Your task to perform on an android device: Play the last video I watched on Youtube Image 0: 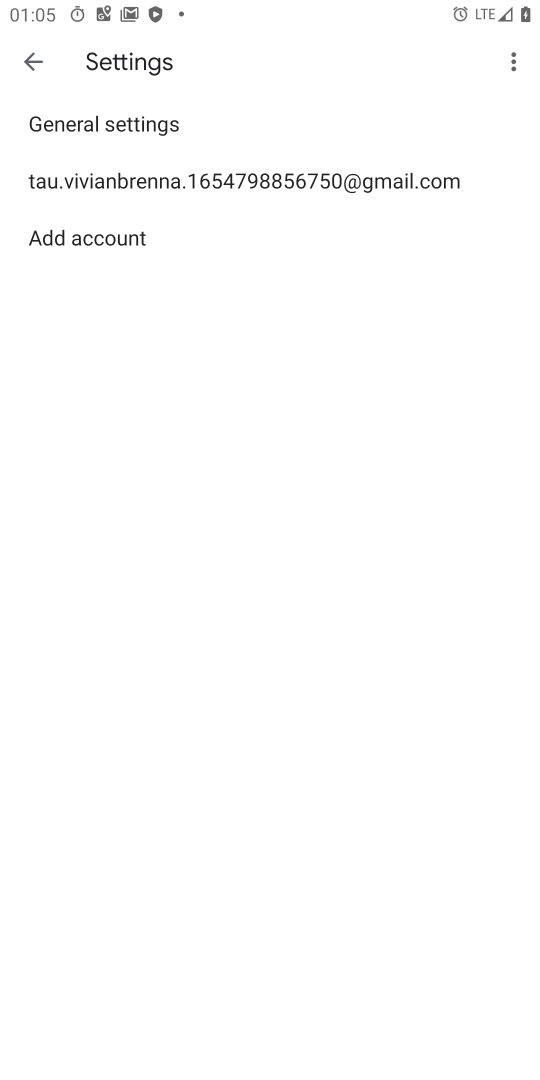
Step 0: press home button
Your task to perform on an android device: Play the last video I watched on Youtube Image 1: 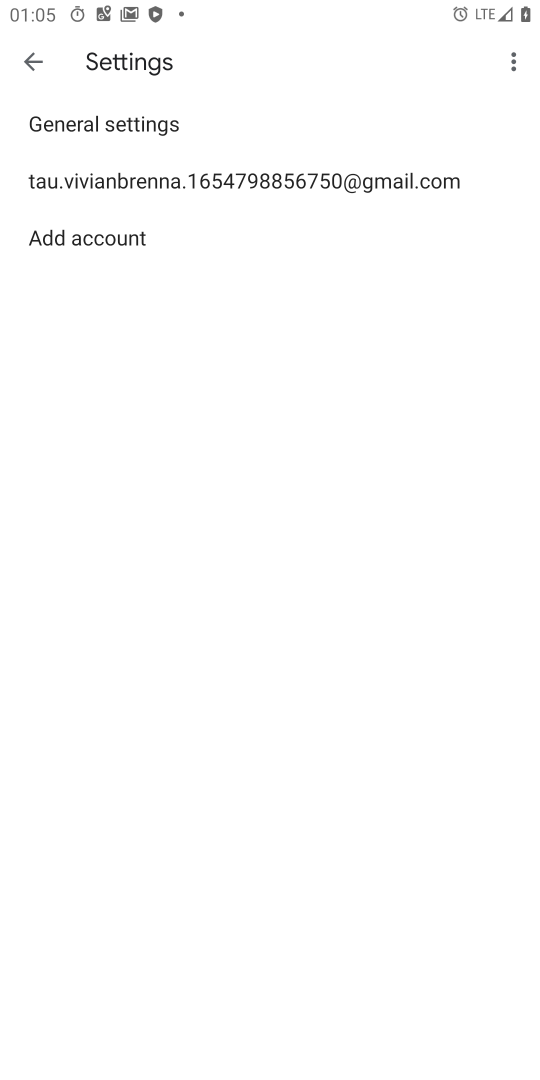
Step 1: press home button
Your task to perform on an android device: Play the last video I watched on Youtube Image 2: 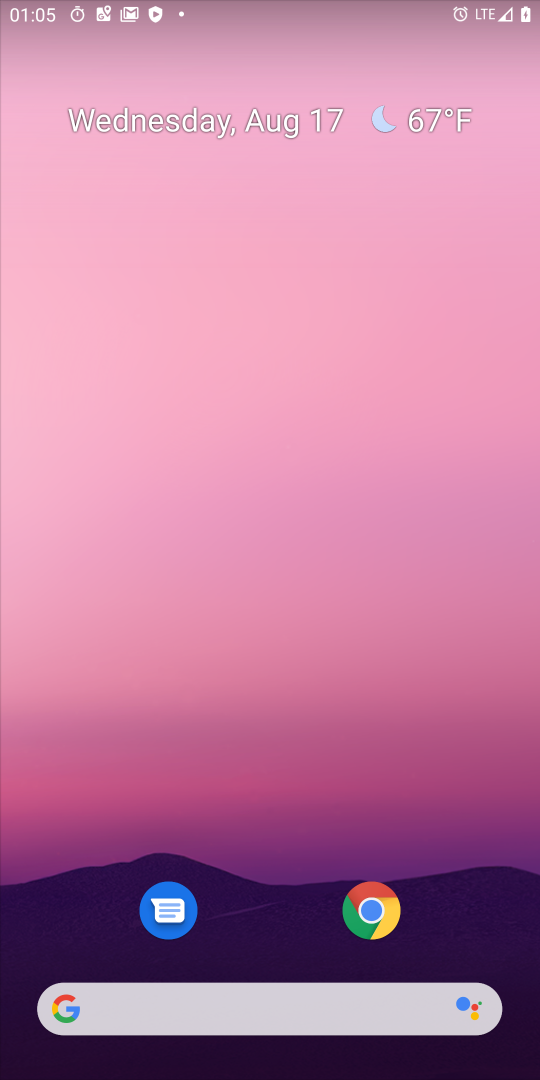
Step 2: drag from (199, 594) to (146, 98)
Your task to perform on an android device: Play the last video I watched on Youtube Image 3: 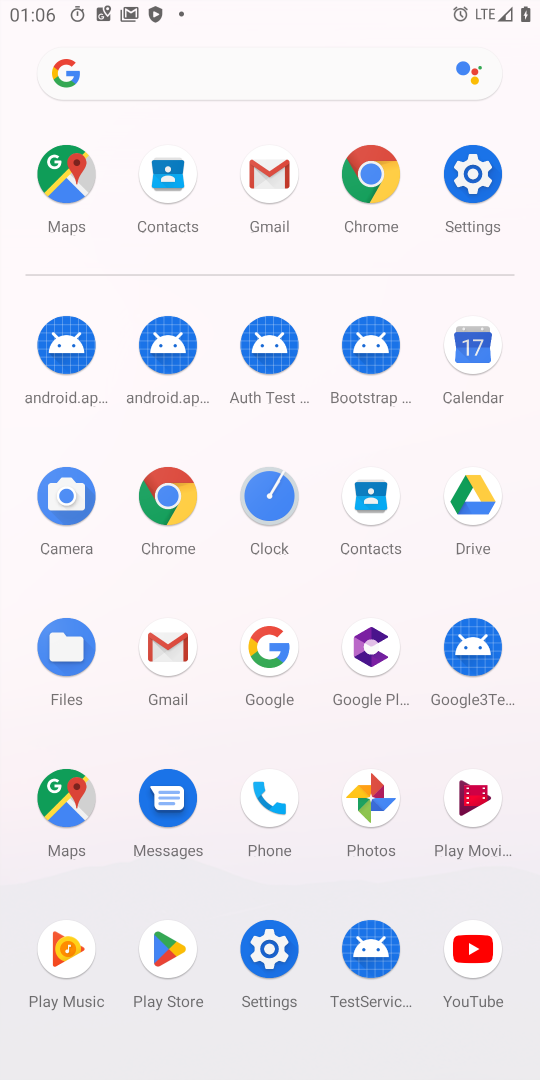
Step 3: click (479, 931)
Your task to perform on an android device: Play the last video I watched on Youtube Image 4: 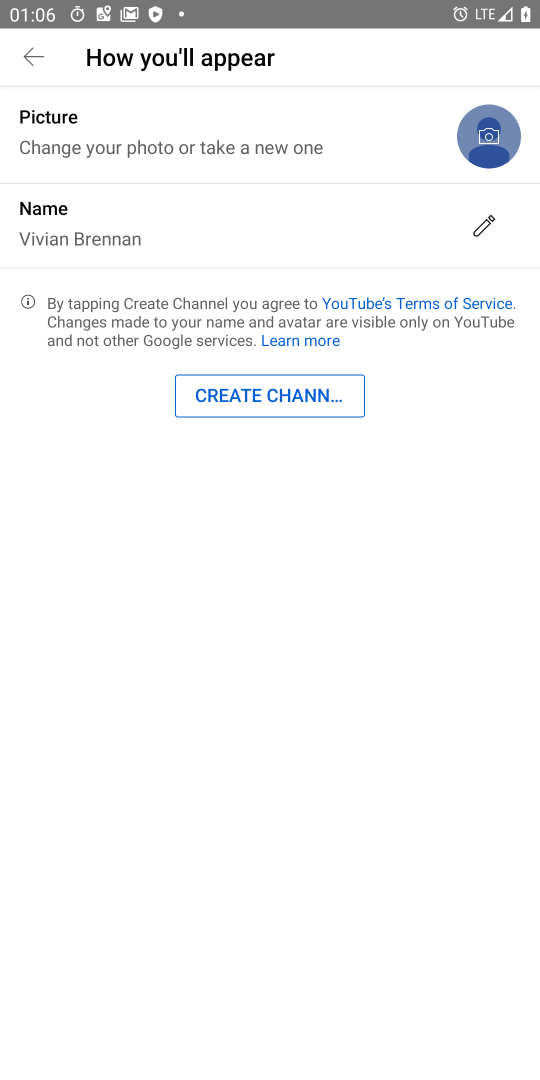
Step 4: press back button
Your task to perform on an android device: Play the last video I watched on Youtube Image 5: 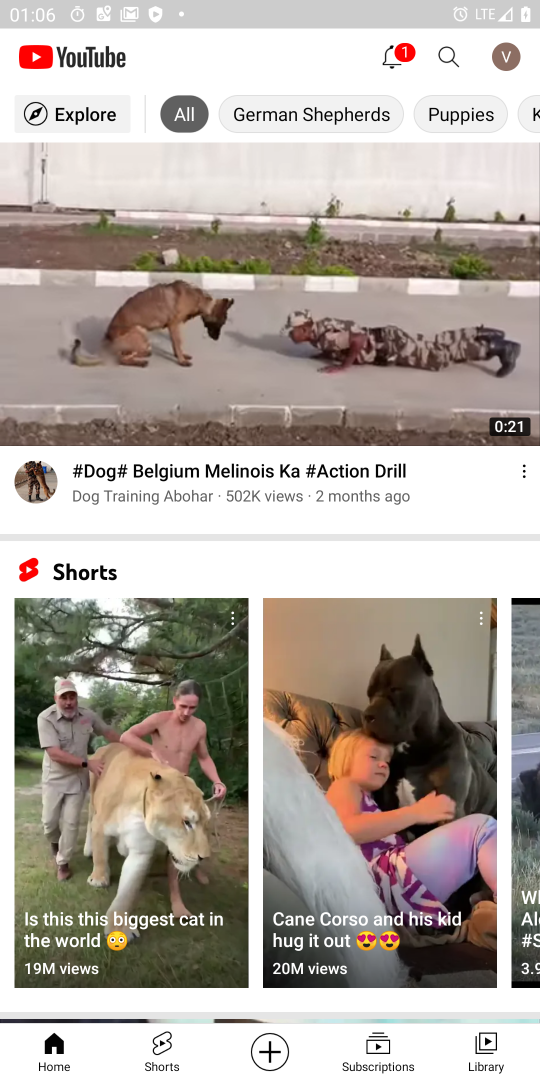
Step 5: click (472, 1064)
Your task to perform on an android device: Play the last video I watched on Youtube Image 6: 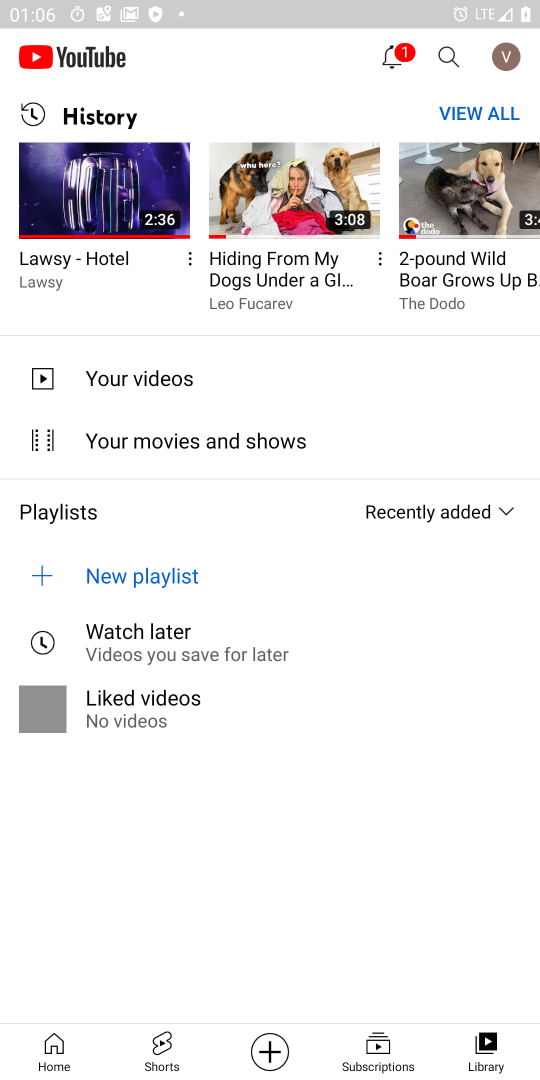
Step 6: click (125, 196)
Your task to perform on an android device: Play the last video I watched on Youtube Image 7: 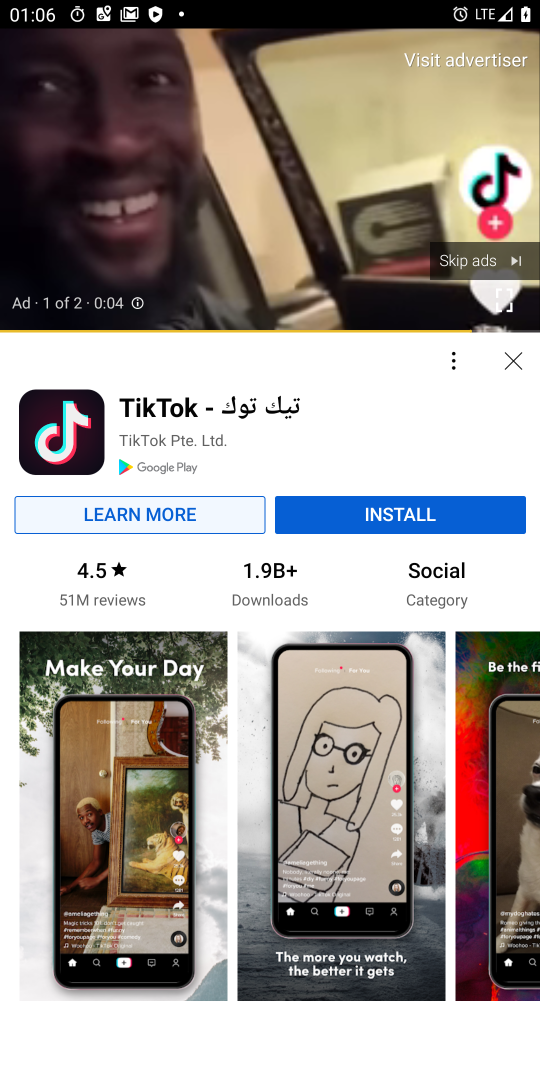
Step 7: click (490, 241)
Your task to perform on an android device: Play the last video I watched on Youtube Image 8: 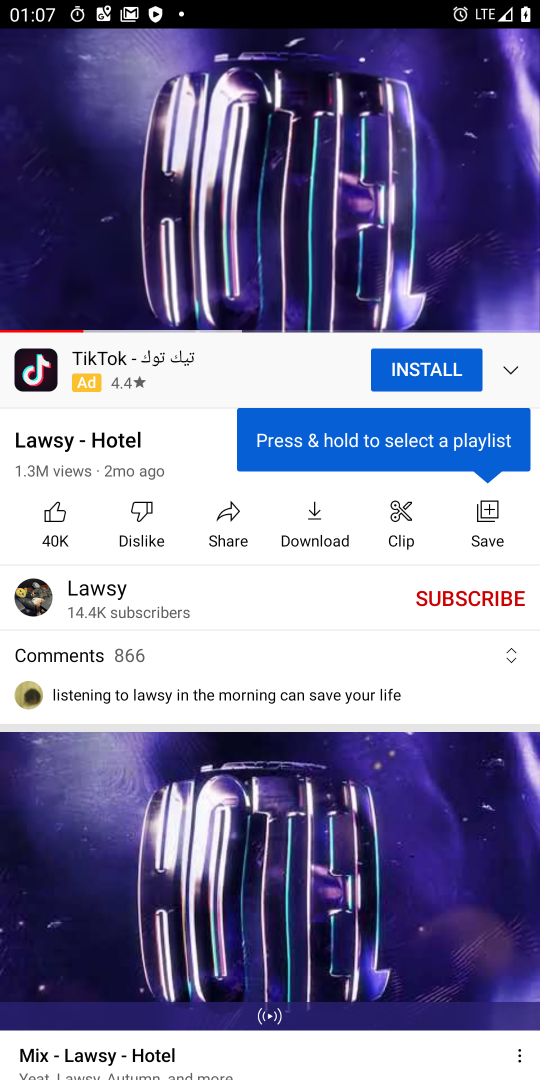
Step 8: task complete